Your task to perform on an android device: Open Android settings Image 0: 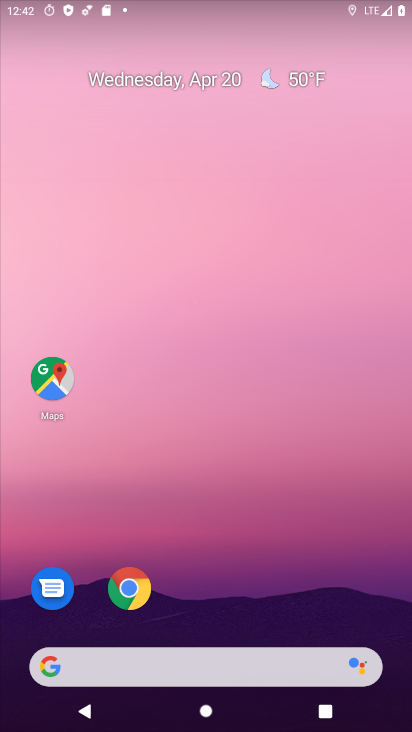
Step 0: drag from (242, 647) to (161, 0)
Your task to perform on an android device: Open Android settings Image 1: 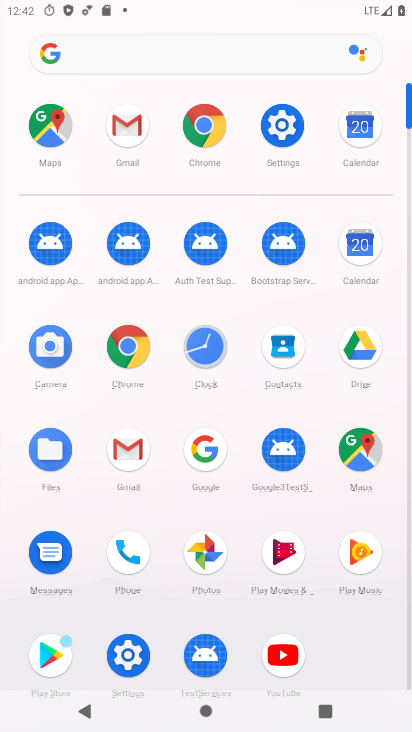
Step 1: click (282, 135)
Your task to perform on an android device: Open Android settings Image 2: 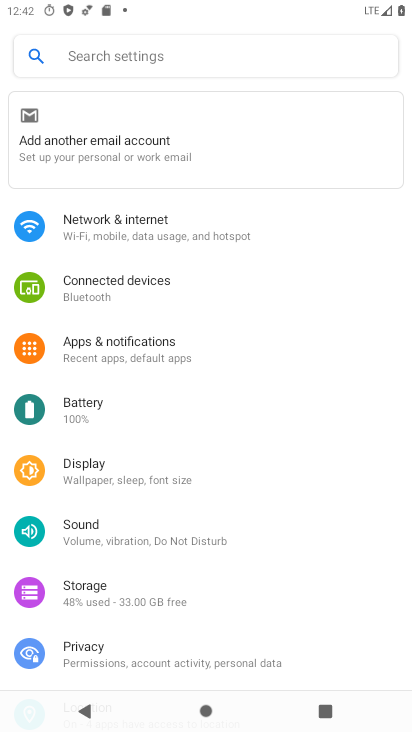
Step 2: task complete